Your task to perform on an android device: Open Reddit.com Image 0: 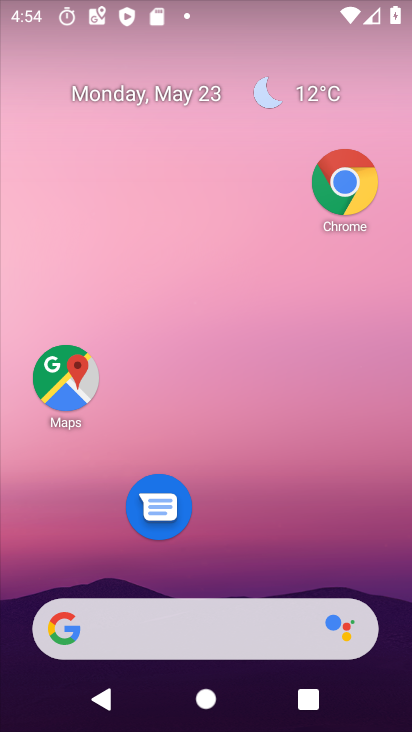
Step 0: click (208, 632)
Your task to perform on an android device: Open Reddit.com Image 1: 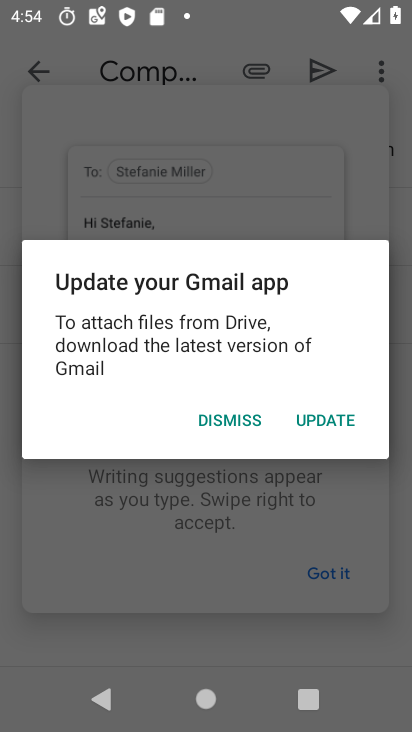
Step 1: press home button
Your task to perform on an android device: Open Reddit.com Image 2: 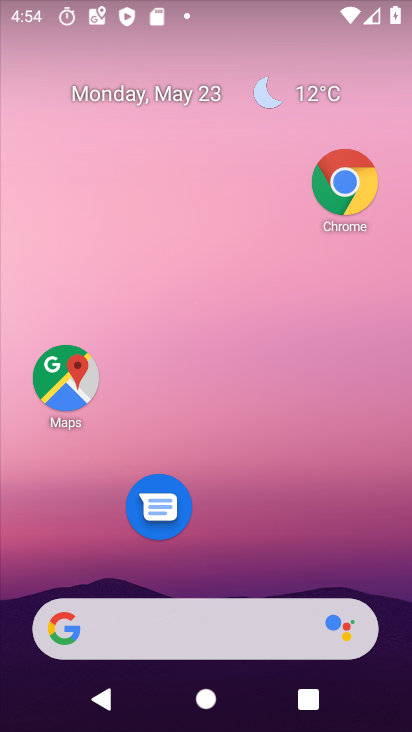
Step 2: click (338, 195)
Your task to perform on an android device: Open Reddit.com Image 3: 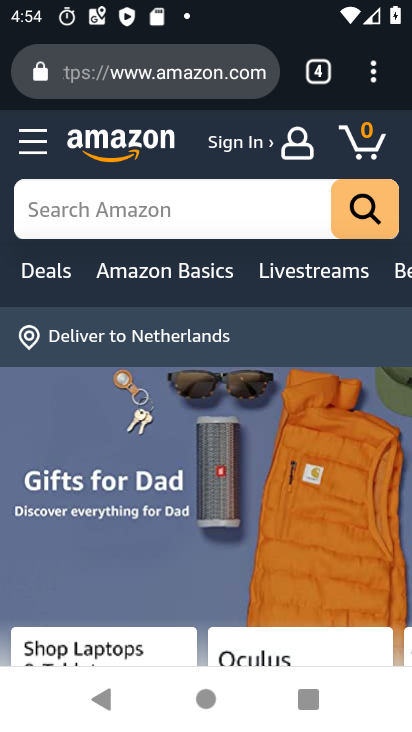
Step 3: click (324, 84)
Your task to perform on an android device: Open Reddit.com Image 4: 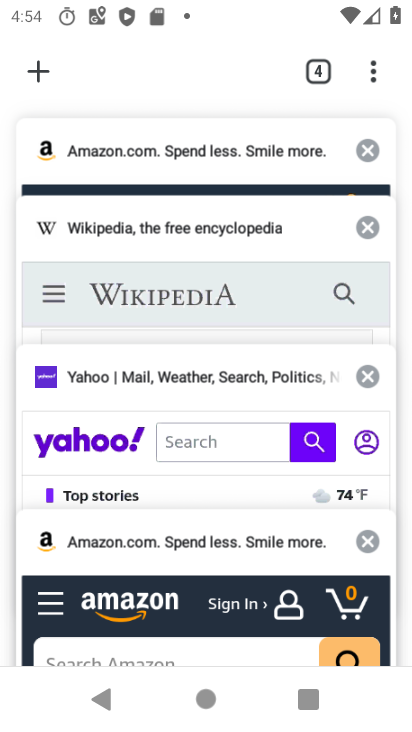
Step 4: click (46, 73)
Your task to perform on an android device: Open Reddit.com Image 5: 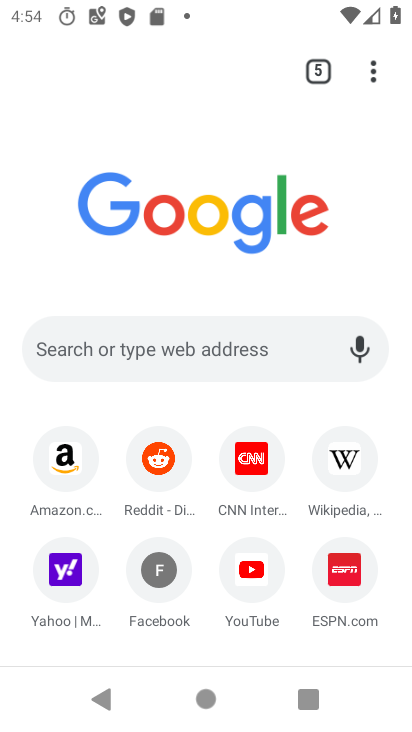
Step 5: click (166, 463)
Your task to perform on an android device: Open Reddit.com Image 6: 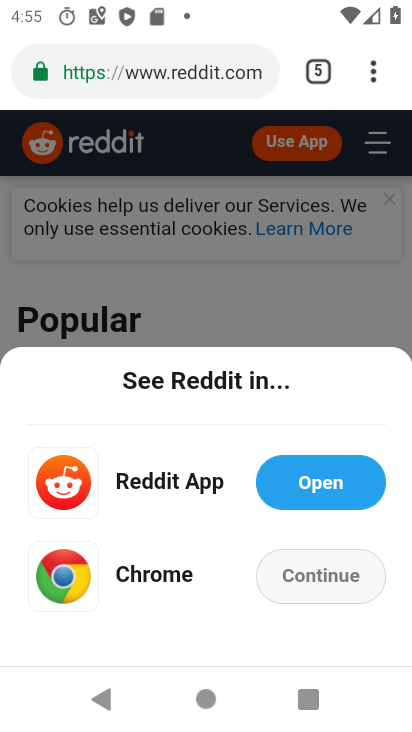
Step 6: task complete